Your task to perform on an android device: check out phone information Image 0: 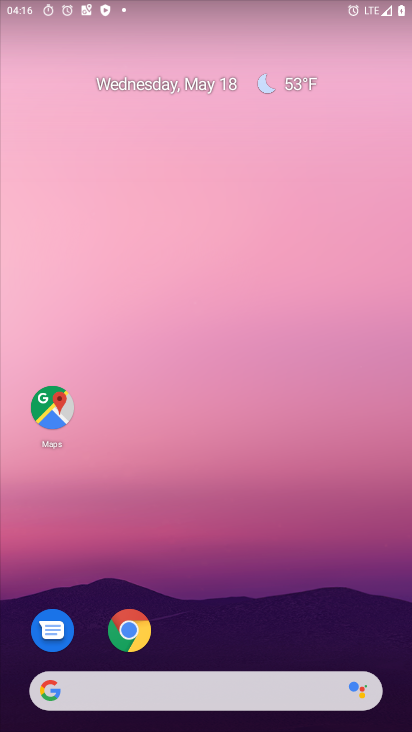
Step 0: drag from (229, 723) to (209, 234)
Your task to perform on an android device: check out phone information Image 1: 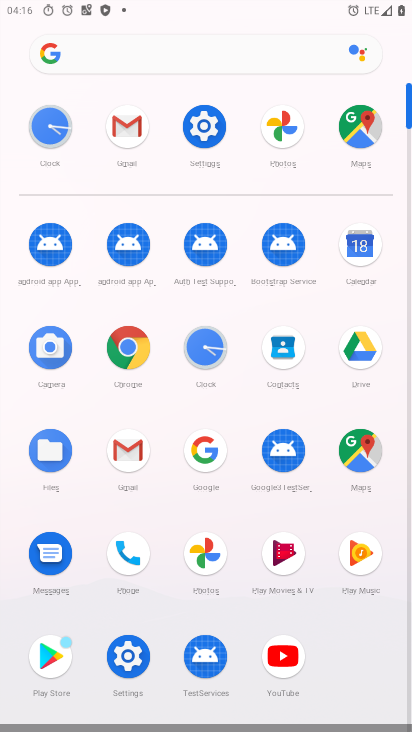
Step 1: click (211, 131)
Your task to perform on an android device: check out phone information Image 2: 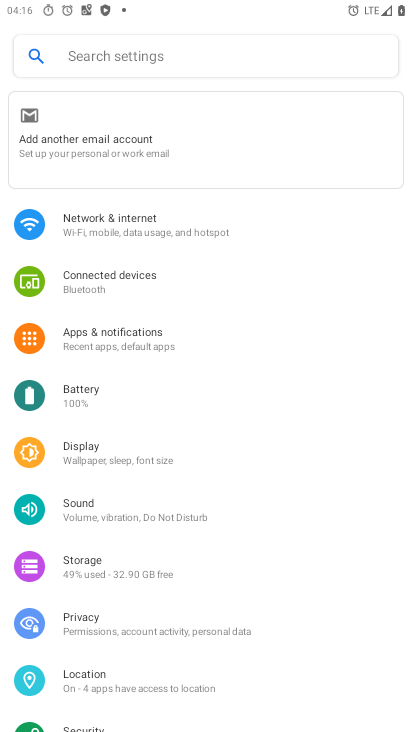
Step 2: drag from (204, 670) to (207, 119)
Your task to perform on an android device: check out phone information Image 3: 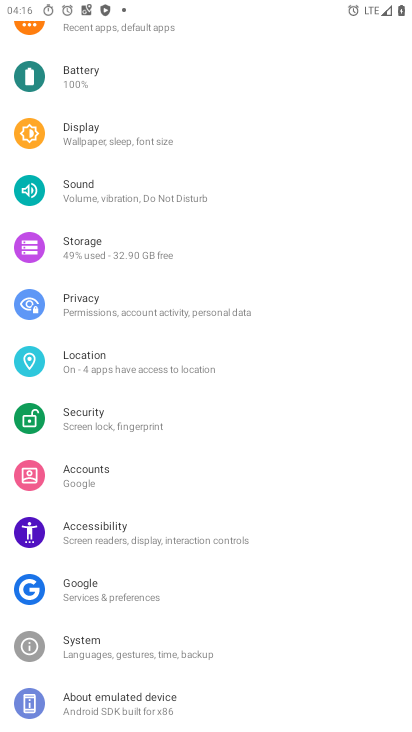
Step 3: drag from (153, 687) to (161, 96)
Your task to perform on an android device: check out phone information Image 4: 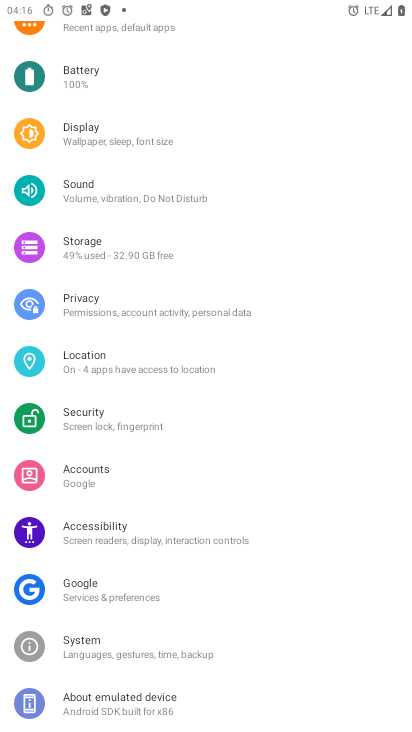
Step 4: click (70, 697)
Your task to perform on an android device: check out phone information Image 5: 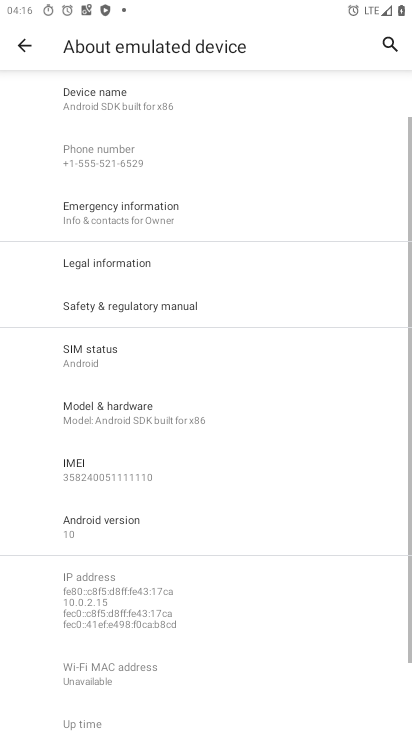
Step 5: task complete